Your task to perform on an android device: What's the weather going to be this weekend? Image 0: 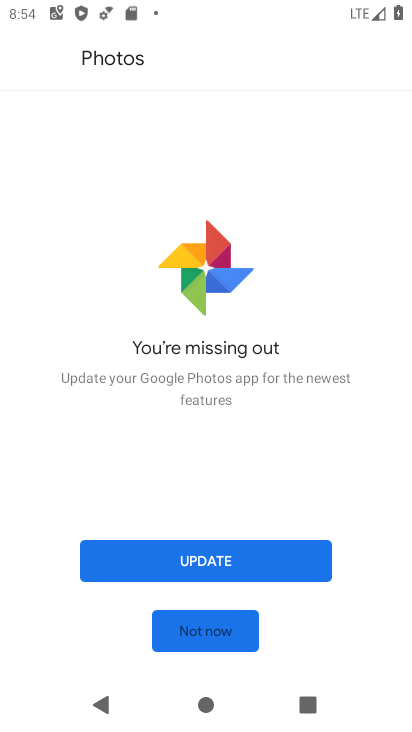
Step 0: press home button
Your task to perform on an android device: What's the weather going to be this weekend? Image 1: 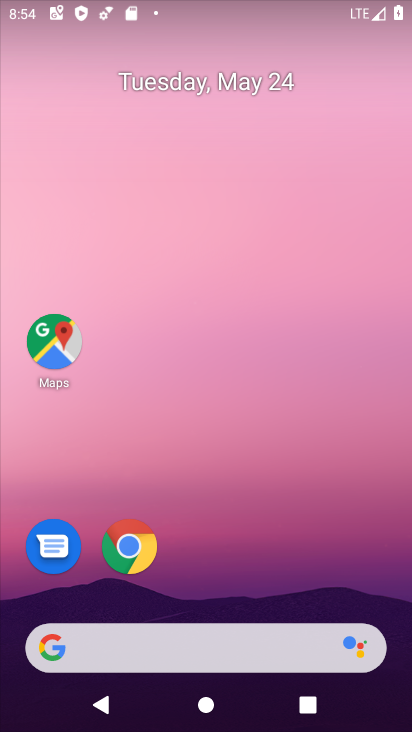
Step 1: click (159, 654)
Your task to perform on an android device: What's the weather going to be this weekend? Image 2: 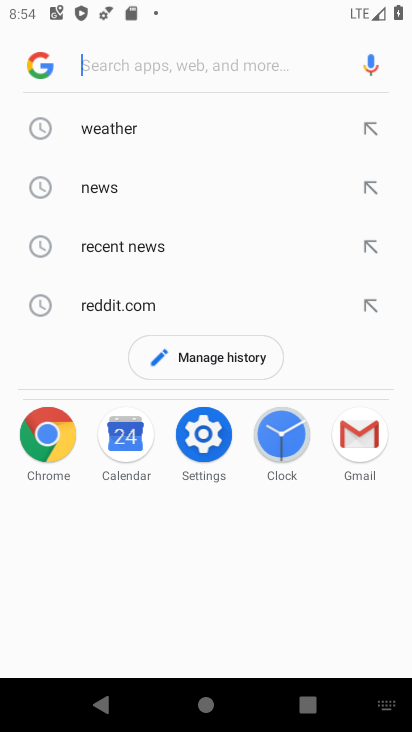
Step 2: click (122, 126)
Your task to perform on an android device: What's the weather going to be this weekend? Image 3: 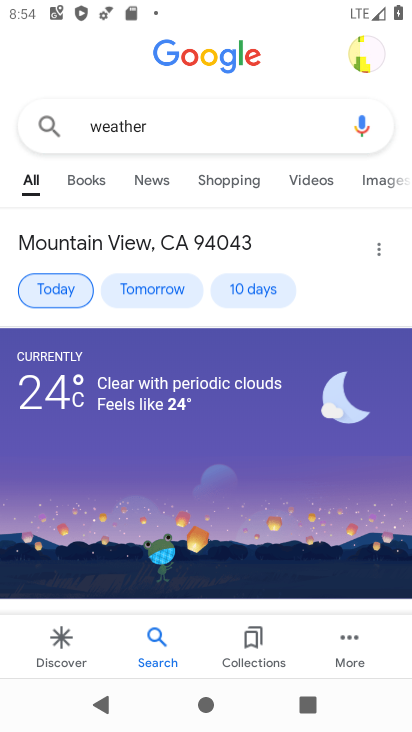
Step 3: click (60, 285)
Your task to perform on an android device: What's the weather going to be this weekend? Image 4: 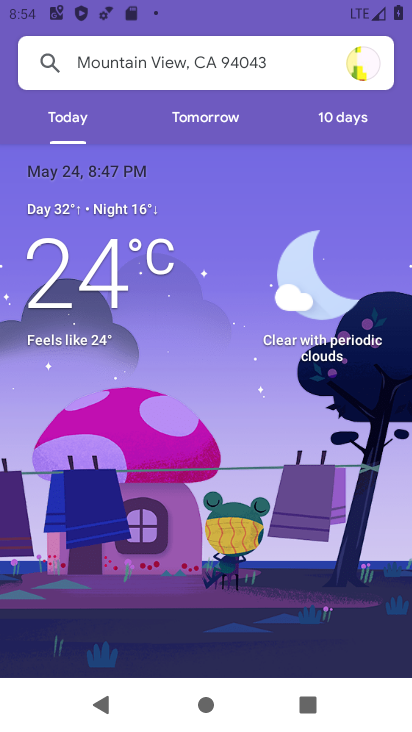
Step 4: click (338, 112)
Your task to perform on an android device: What's the weather going to be this weekend? Image 5: 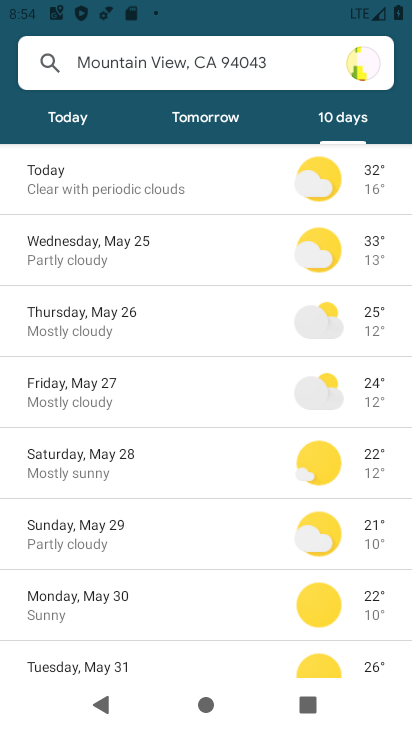
Step 5: click (53, 458)
Your task to perform on an android device: What's the weather going to be this weekend? Image 6: 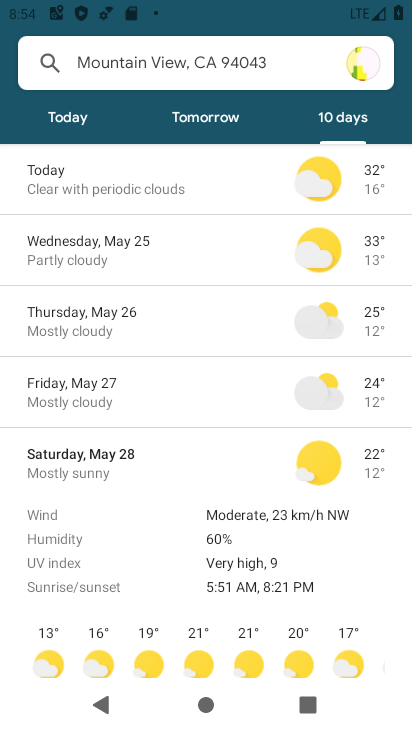
Step 6: task complete